Your task to perform on an android device: turn on translation in the chrome app Image 0: 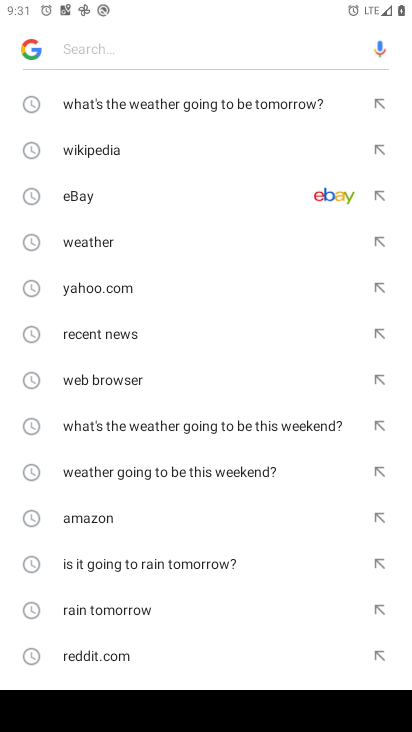
Step 0: press home button
Your task to perform on an android device: turn on translation in the chrome app Image 1: 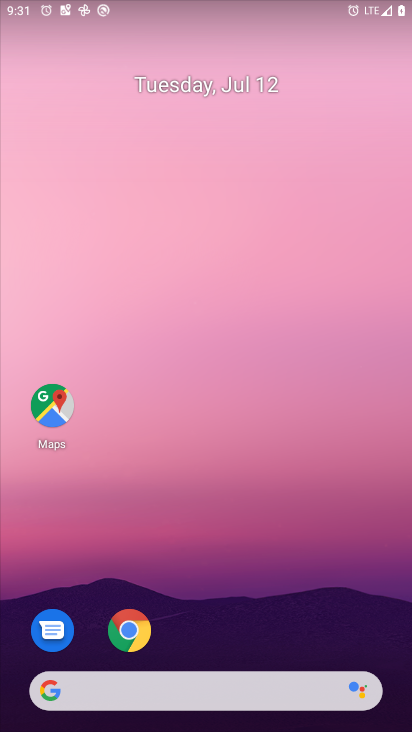
Step 1: click (130, 629)
Your task to perform on an android device: turn on translation in the chrome app Image 2: 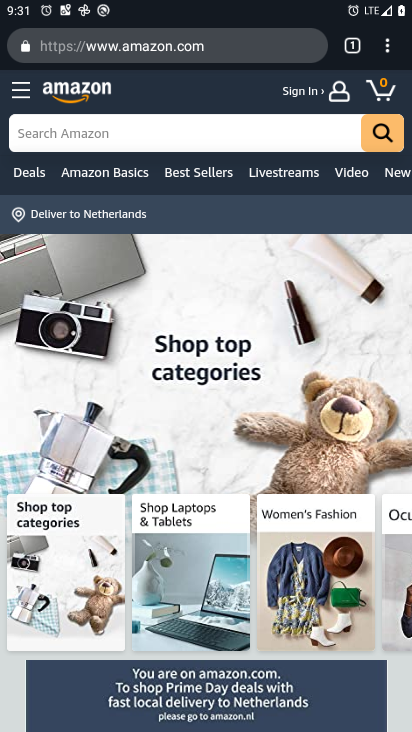
Step 2: drag from (390, 44) to (210, 552)
Your task to perform on an android device: turn on translation in the chrome app Image 3: 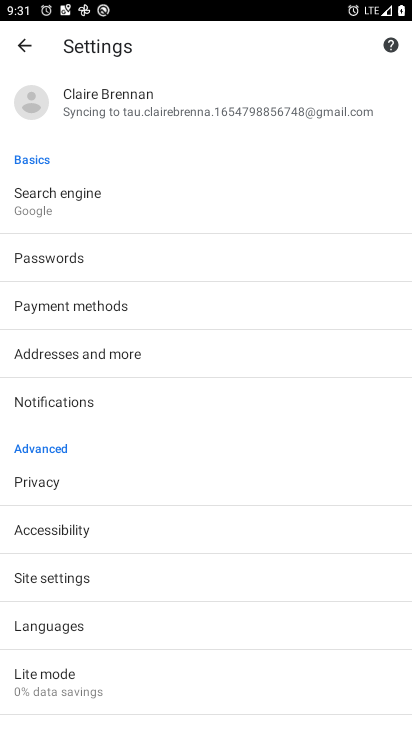
Step 3: click (50, 622)
Your task to perform on an android device: turn on translation in the chrome app Image 4: 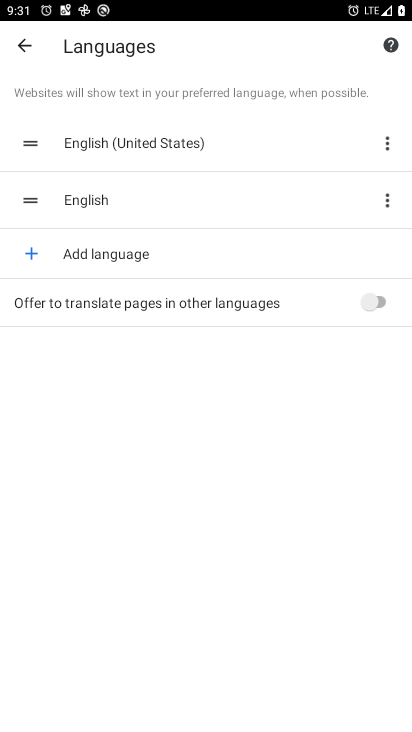
Step 4: click (373, 302)
Your task to perform on an android device: turn on translation in the chrome app Image 5: 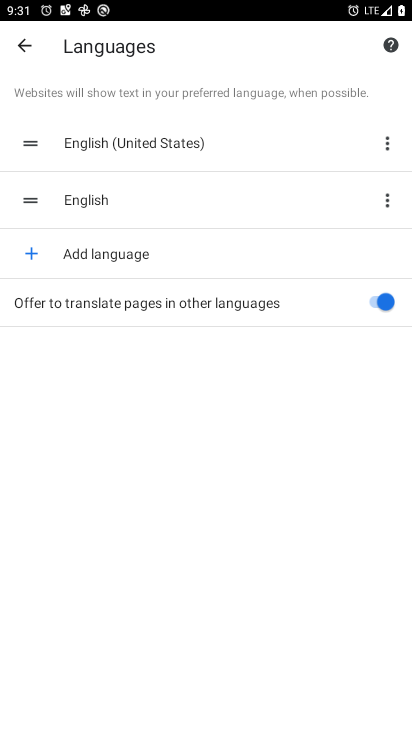
Step 5: task complete